Your task to perform on an android device: turn off notifications settings in the gmail app Image 0: 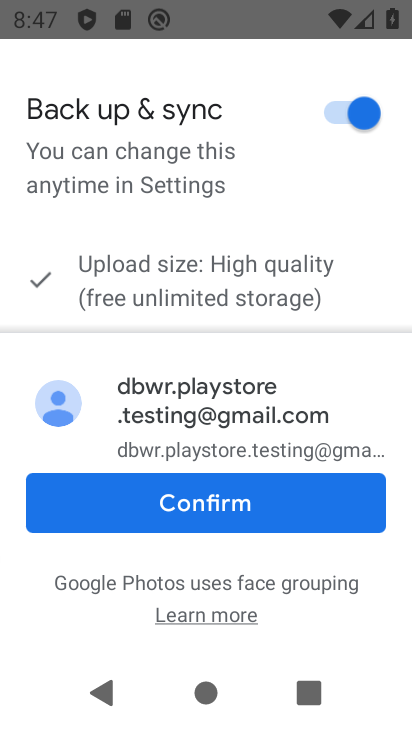
Step 0: press home button
Your task to perform on an android device: turn off notifications settings in the gmail app Image 1: 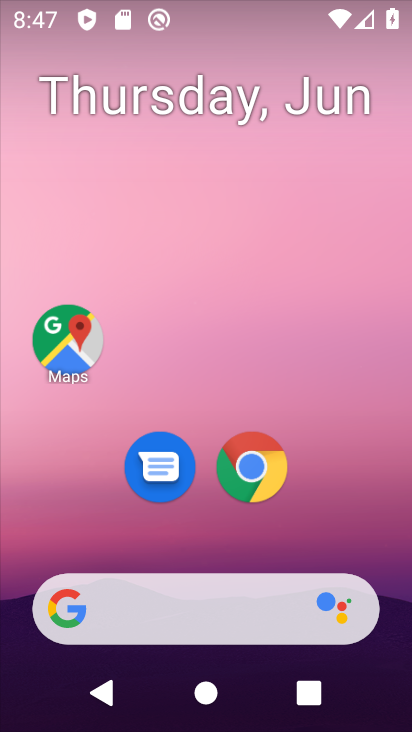
Step 1: drag from (83, 524) to (151, 172)
Your task to perform on an android device: turn off notifications settings in the gmail app Image 2: 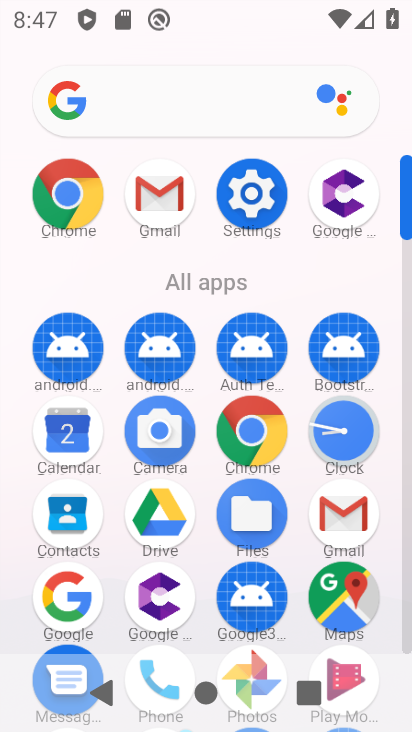
Step 2: click (345, 518)
Your task to perform on an android device: turn off notifications settings in the gmail app Image 3: 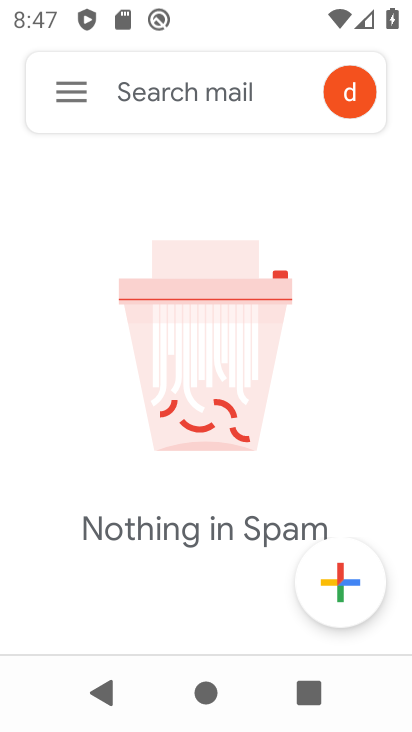
Step 3: click (80, 97)
Your task to perform on an android device: turn off notifications settings in the gmail app Image 4: 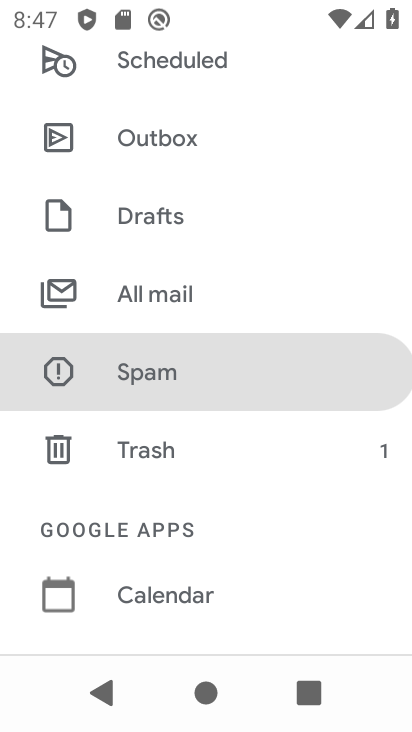
Step 4: drag from (124, 539) to (237, 137)
Your task to perform on an android device: turn off notifications settings in the gmail app Image 5: 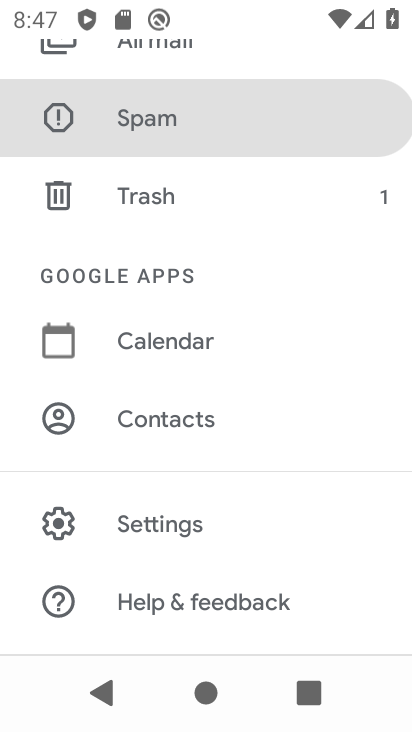
Step 5: click (191, 526)
Your task to perform on an android device: turn off notifications settings in the gmail app Image 6: 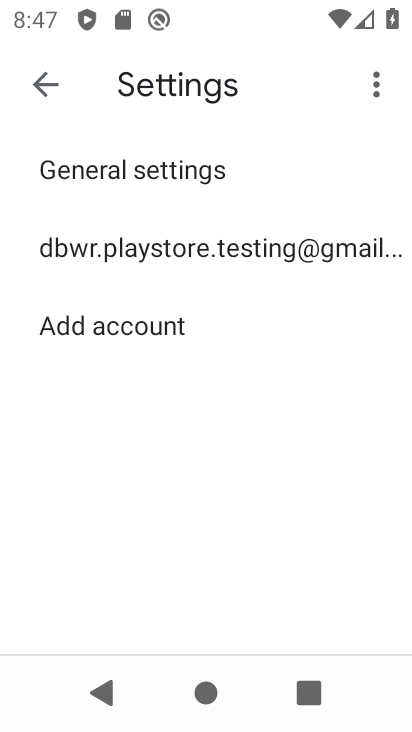
Step 6: click (228, 256)
Your task to perform on an android device: turn off notifications settings in the gmail app Image 7: 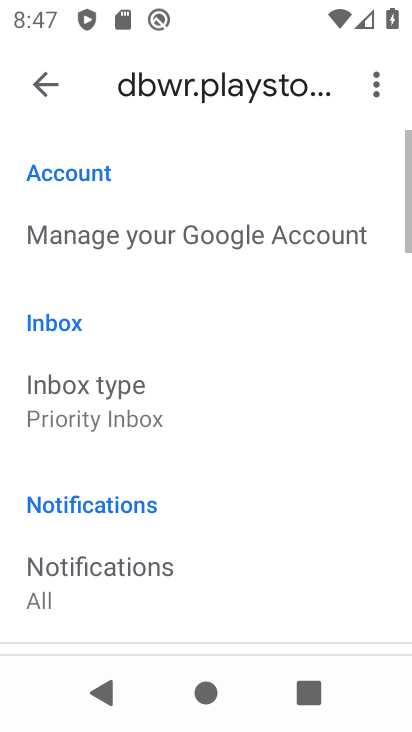
Step 7: drag from (181, 572) to (276, 134)
Your task to perform on an android device: turn off notifications settings in the gmail app Image 8: 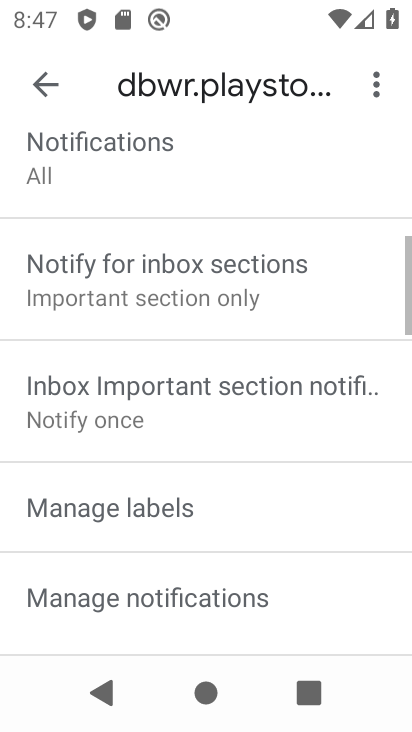
Step 8: drag from (199, 550) to (238, 329)
Your task to perform on an android device: turn off notifications settings in the gmail app Image 9: 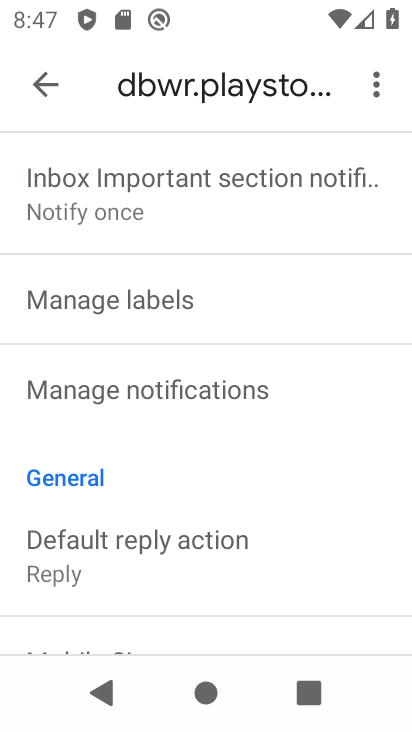
Step 9: click (201, 398)
Your task to perform on an android device: turn off notifications settings in the gmail app Image 10: 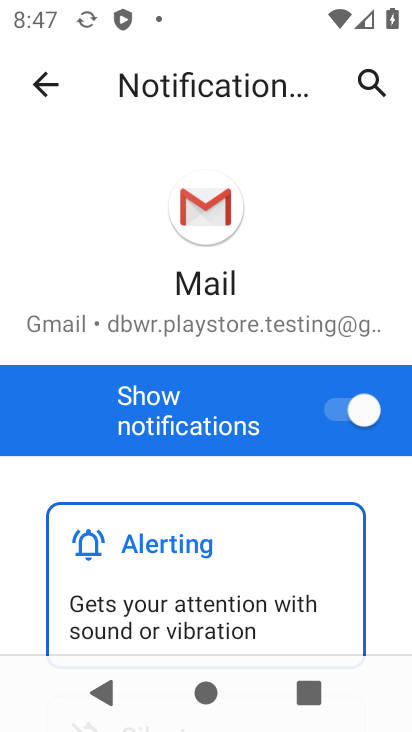
Step 10: click (356, 415)
Your task to perform on an android device: turn off notifications settings in the gmail app Image 11: 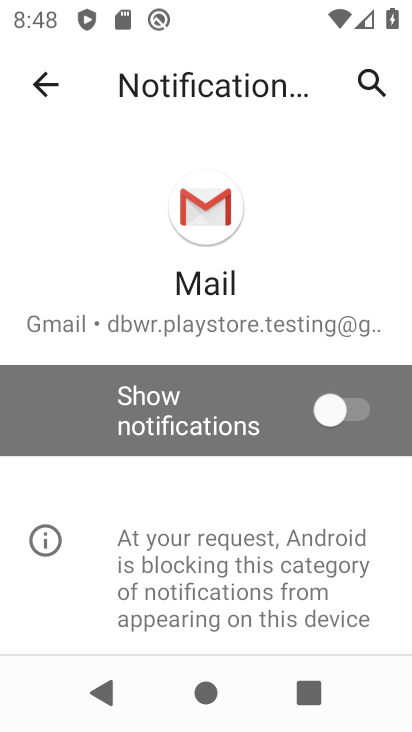
Step 11: task complete